Your task to perform on an android device: turn on wifi Image 0: 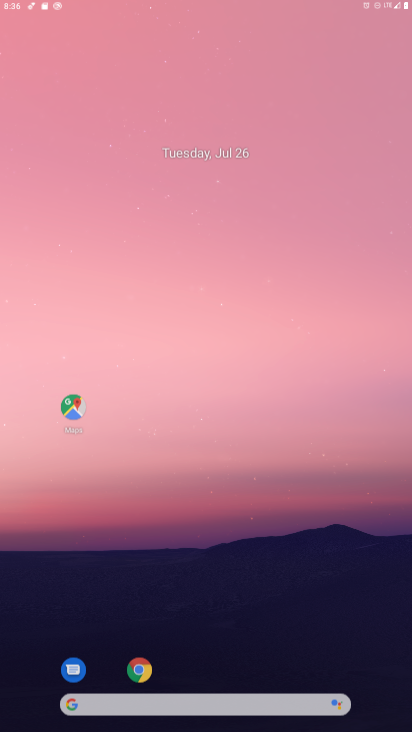
Step 0: click (148, 9)
Your task to perform on an android device: turn on wifi Image 1: 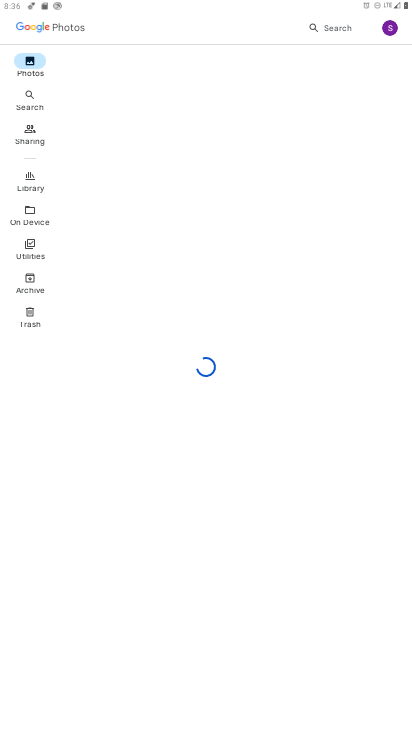
Step 1: press home button
Your task to perform on an android device: turn on wifi Image 2: 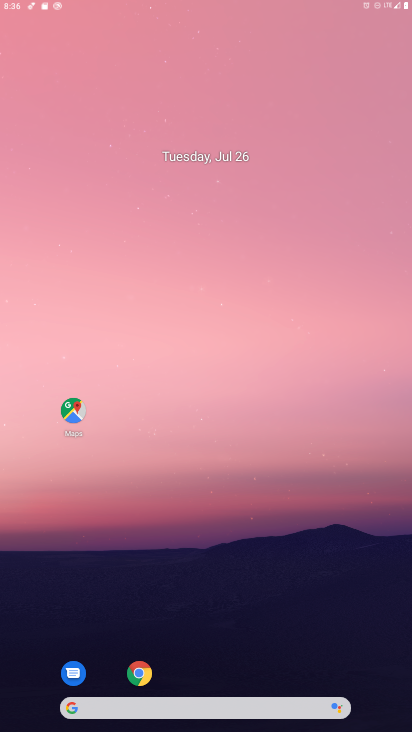
Step 2: drag from (156, 5) to (189, 619)
Your task to perform on an android device: turn on wifi Image 3: 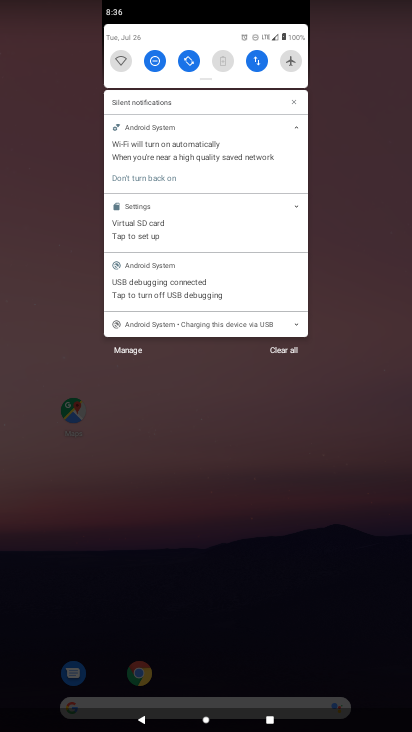
Step 3: click (117, 61)
Your task to perform on an android device: turn on wifi Image 4: 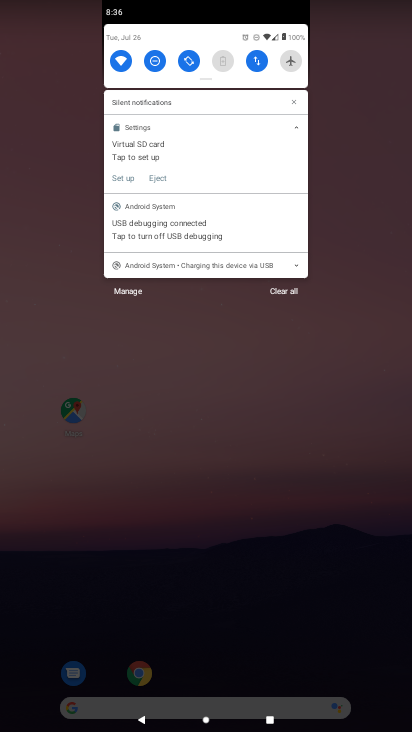
Step 4: task complete